Your task to perform on an android device: Add "corsair k70" to the cart on amazon, then select checkout. Image 0: 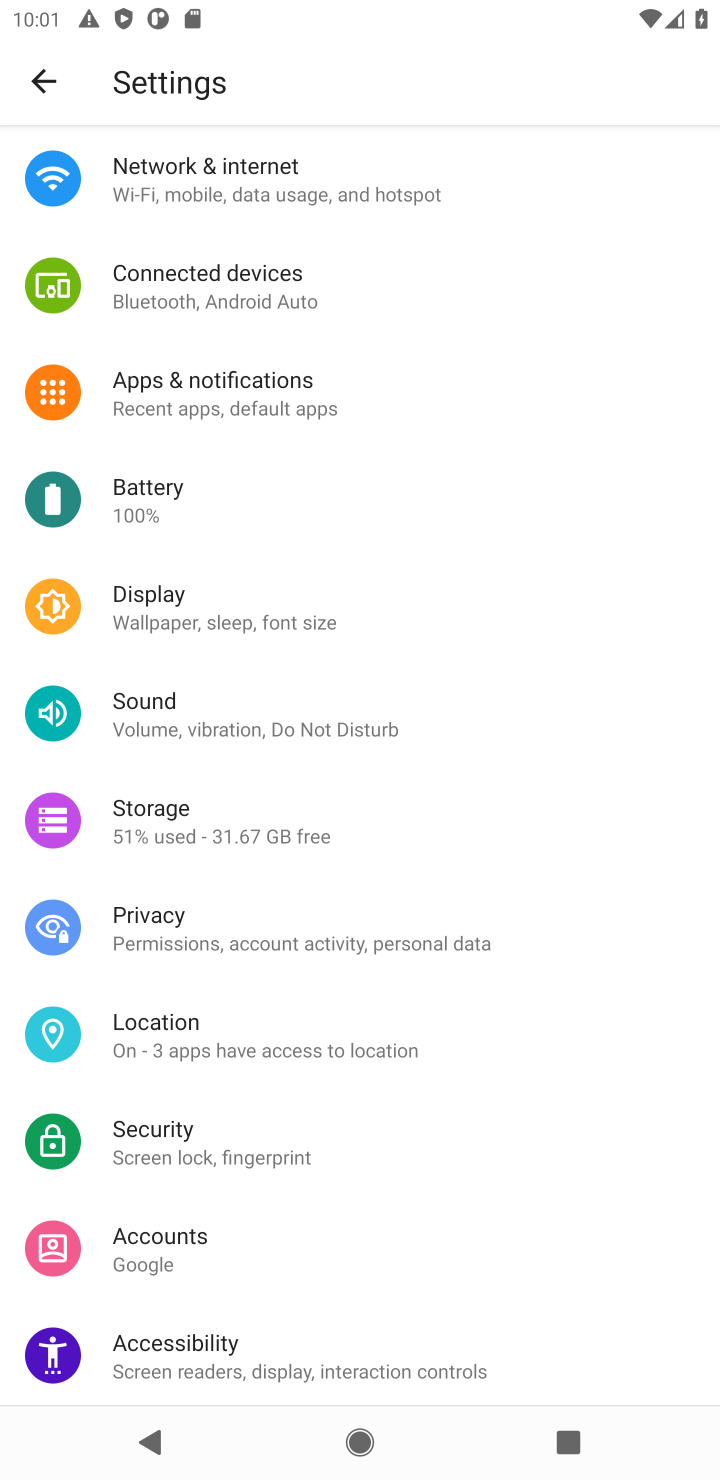
Step 0: press home button
Your task to perform on an android device: Add "corsair k70" to the cart on amazon, then select checkout. Image 1: 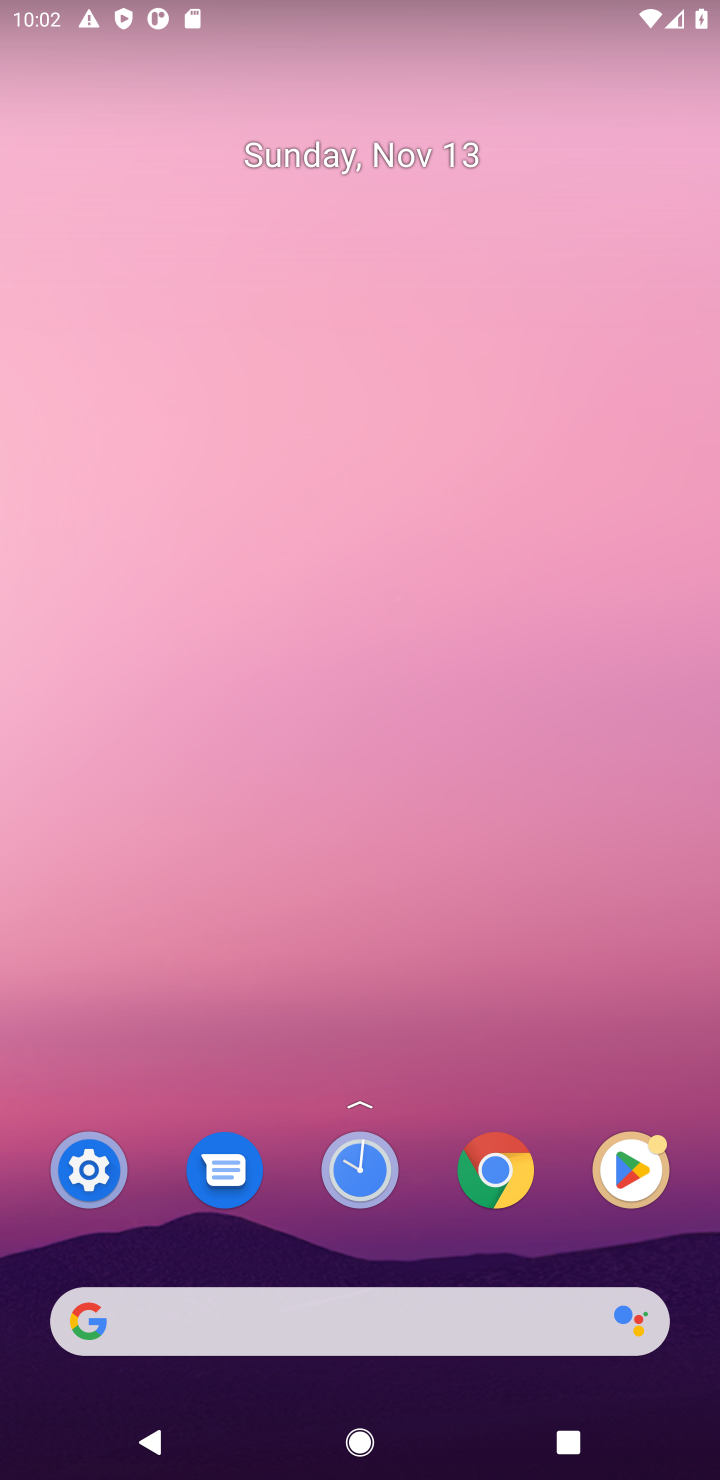
Step 1: click (279, 1351)
Your task to perform on an android device: Add "corsair k70" to the cart on amazon, then select checkout. Image 2: 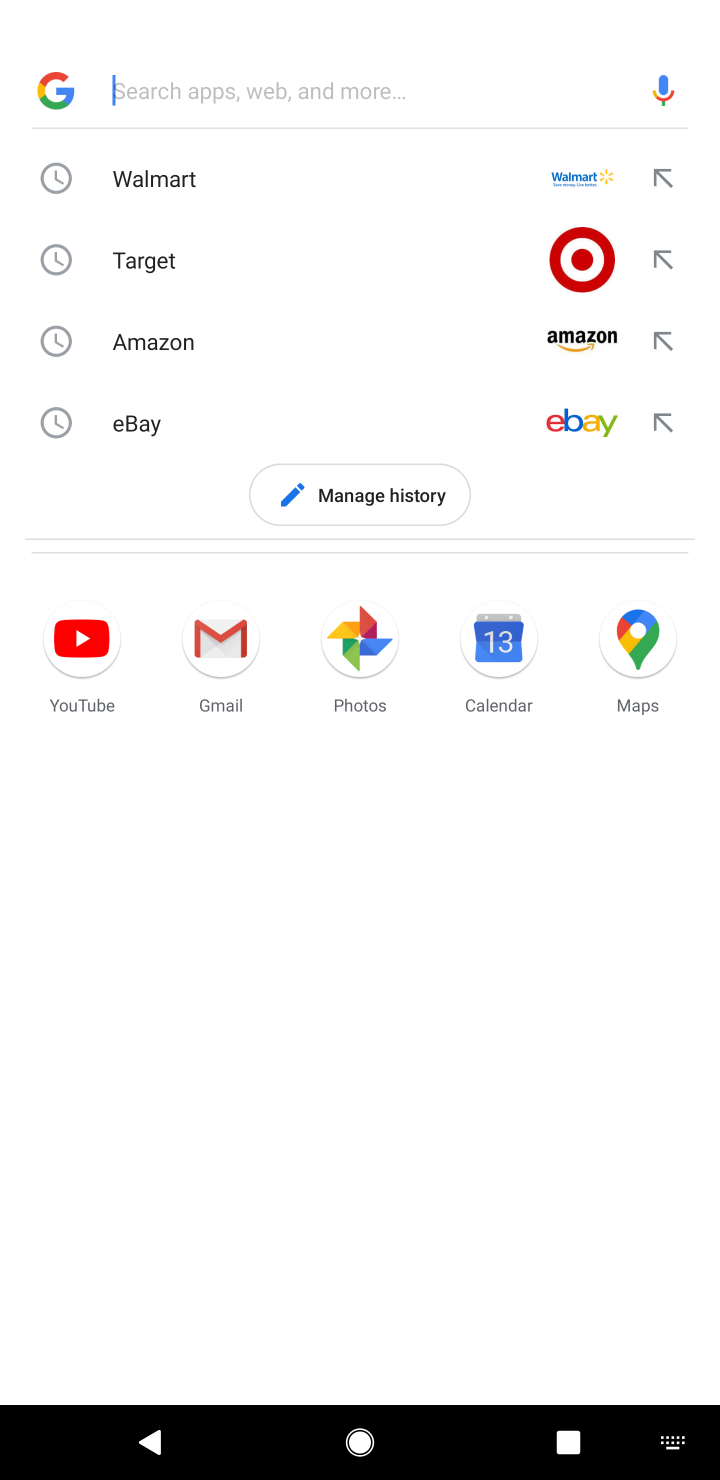
Step 2: type "amazon.com"
Your task to perform on an android device: Add "corsair k70" to the cart on amazon, then select checkout. Image 3: 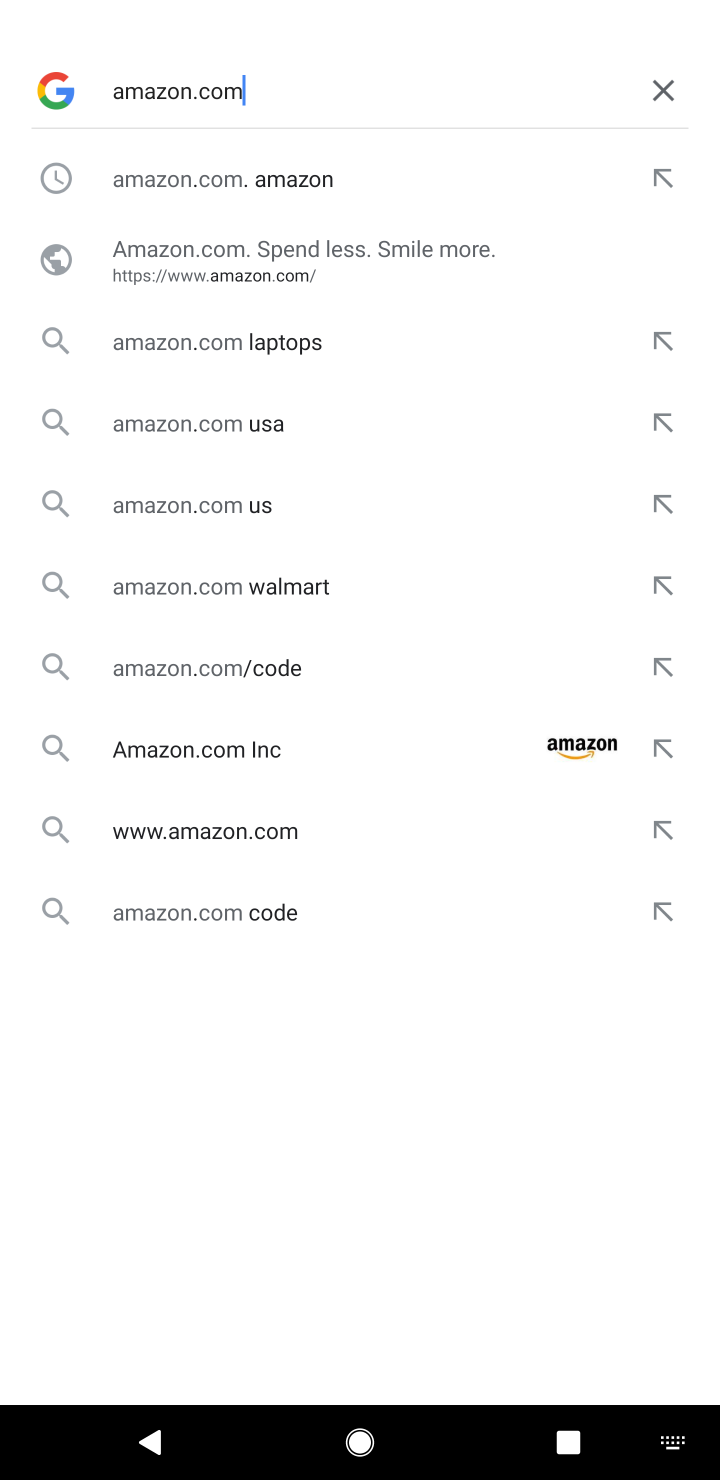
Step 3: click (252, 737)
Your task to perform on an android device: Add "corsair k70" to the cart on amazon, then select checkout. Image 4: 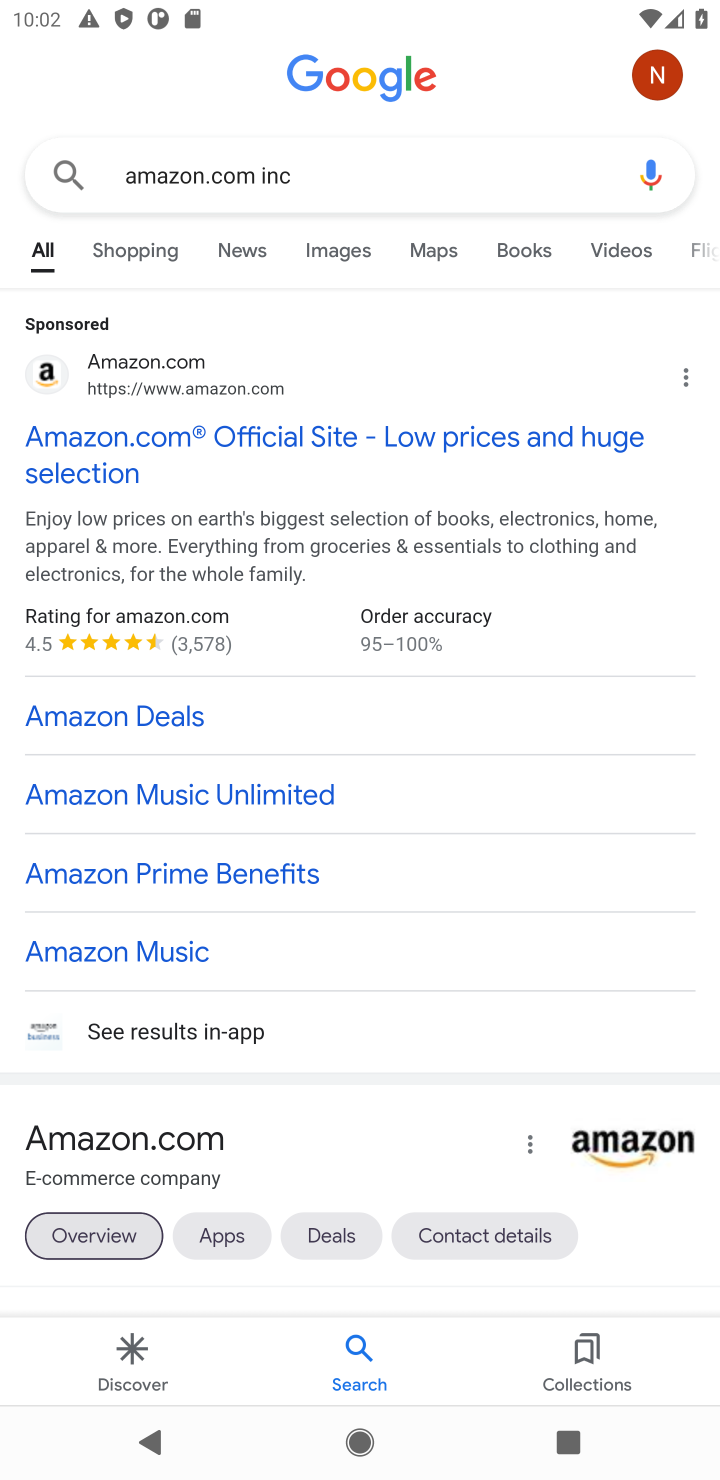
Step 4: click (104, 481)
Your task to perform on an android device: Add "corsair k70" to the cart on amazon, then select checkout. Image 5: 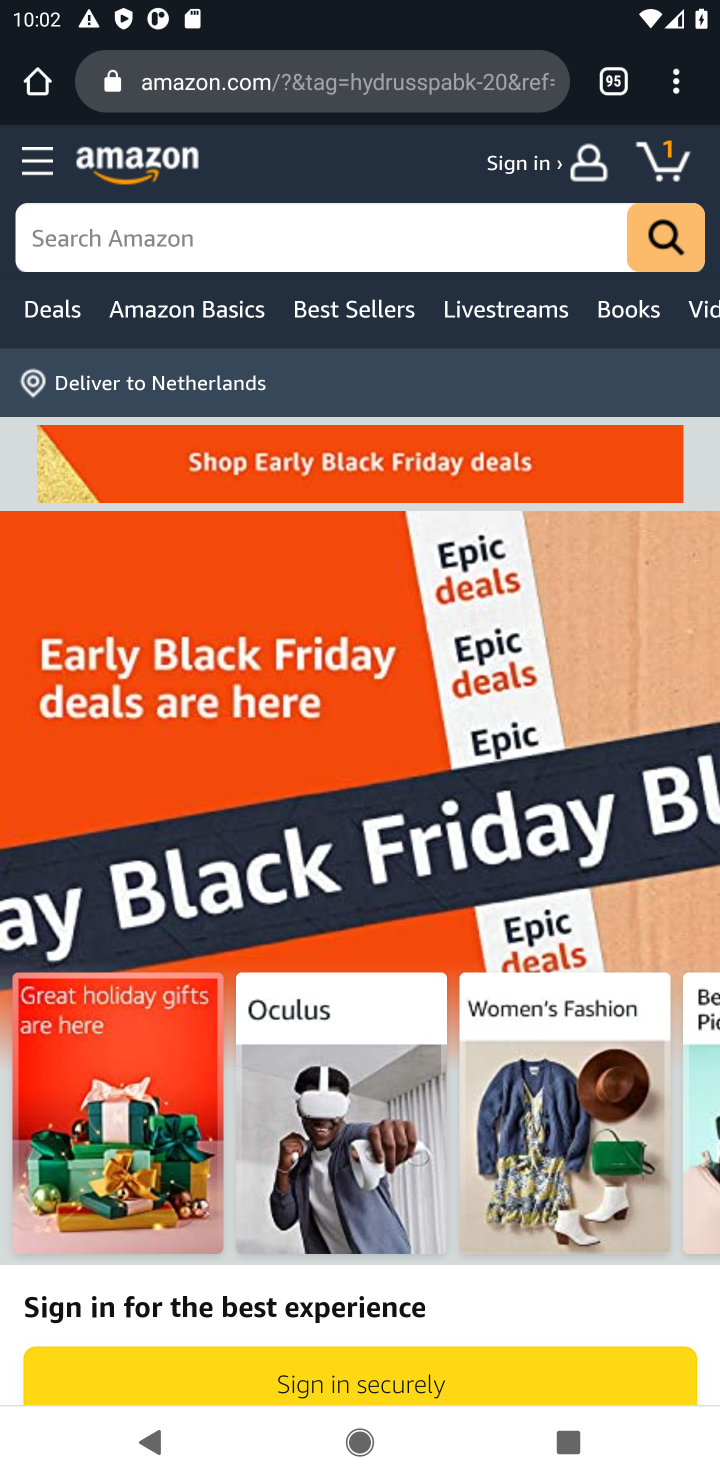
Step 5: click (305, 254)
Your task to perform on an android device: Add "corsair k70" to the cart on amazon, then select checkout. Image 6: 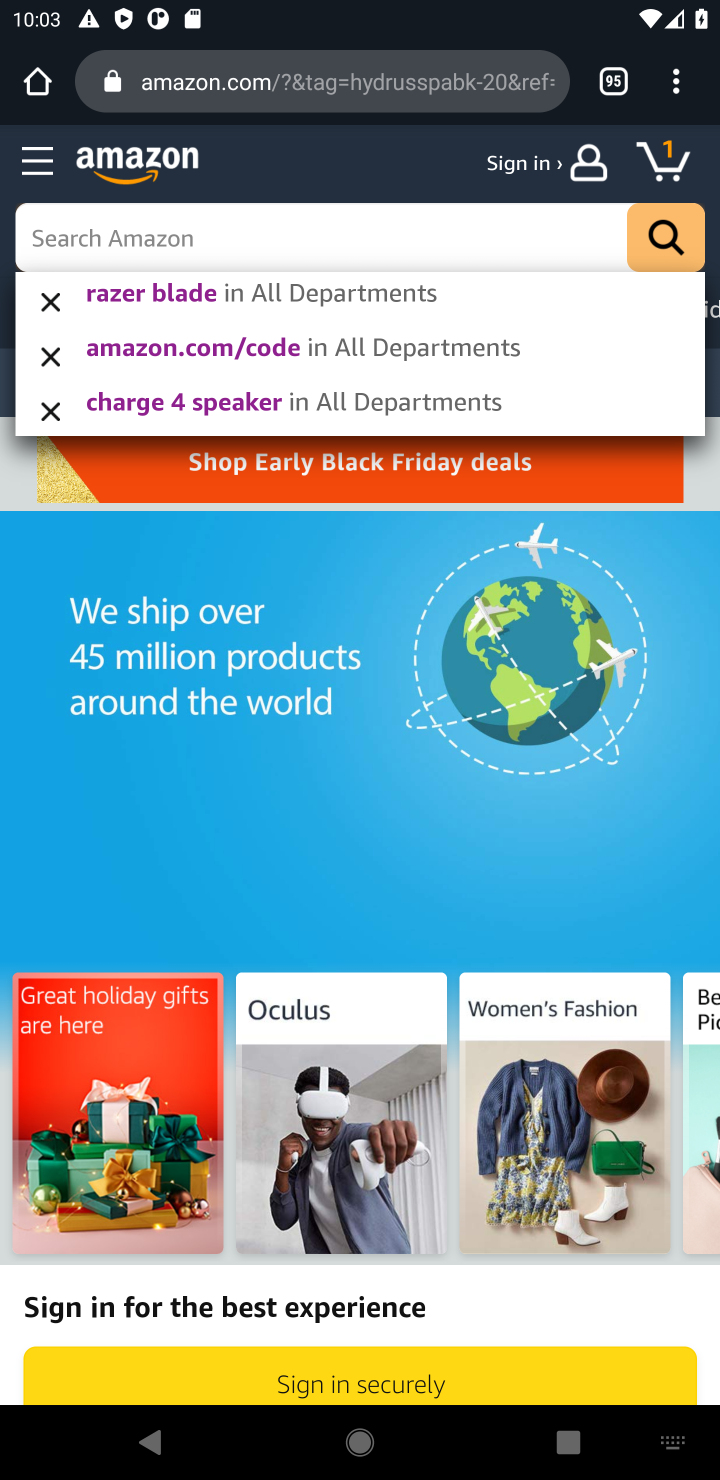
Step 6: type "corsair.com"
Your task to perform on an android device: Add "corsair k70" to the cart on amazon, then select checkout. Image 7: 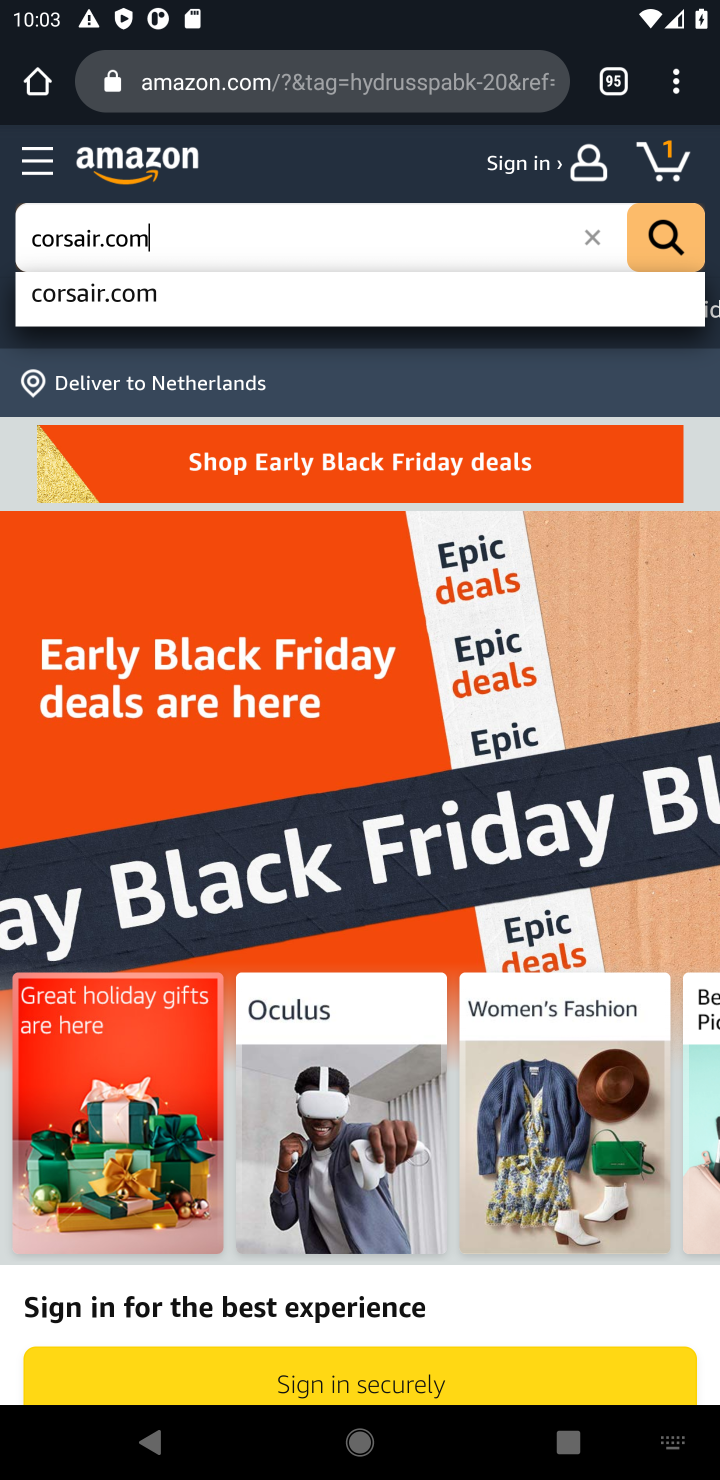
Step 7: click (668, 243)
Your task to perform on an android device: Add "corsair k70" to the cart on amazon, then select checkout. Image 8: 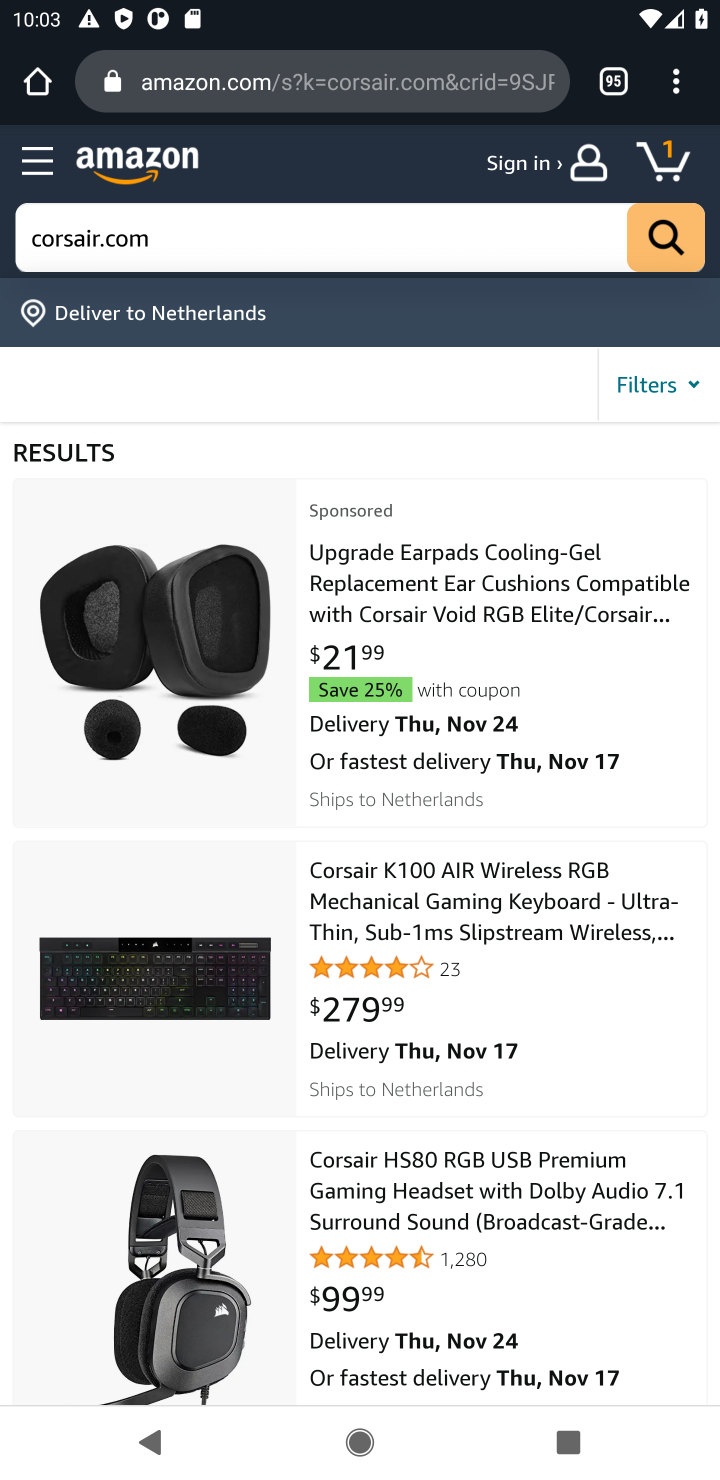
Step 8: click (406, 527)
Your task to perform on an android device: Add "corsair k70" to the cart on amazon, then select checkout. Image 9: 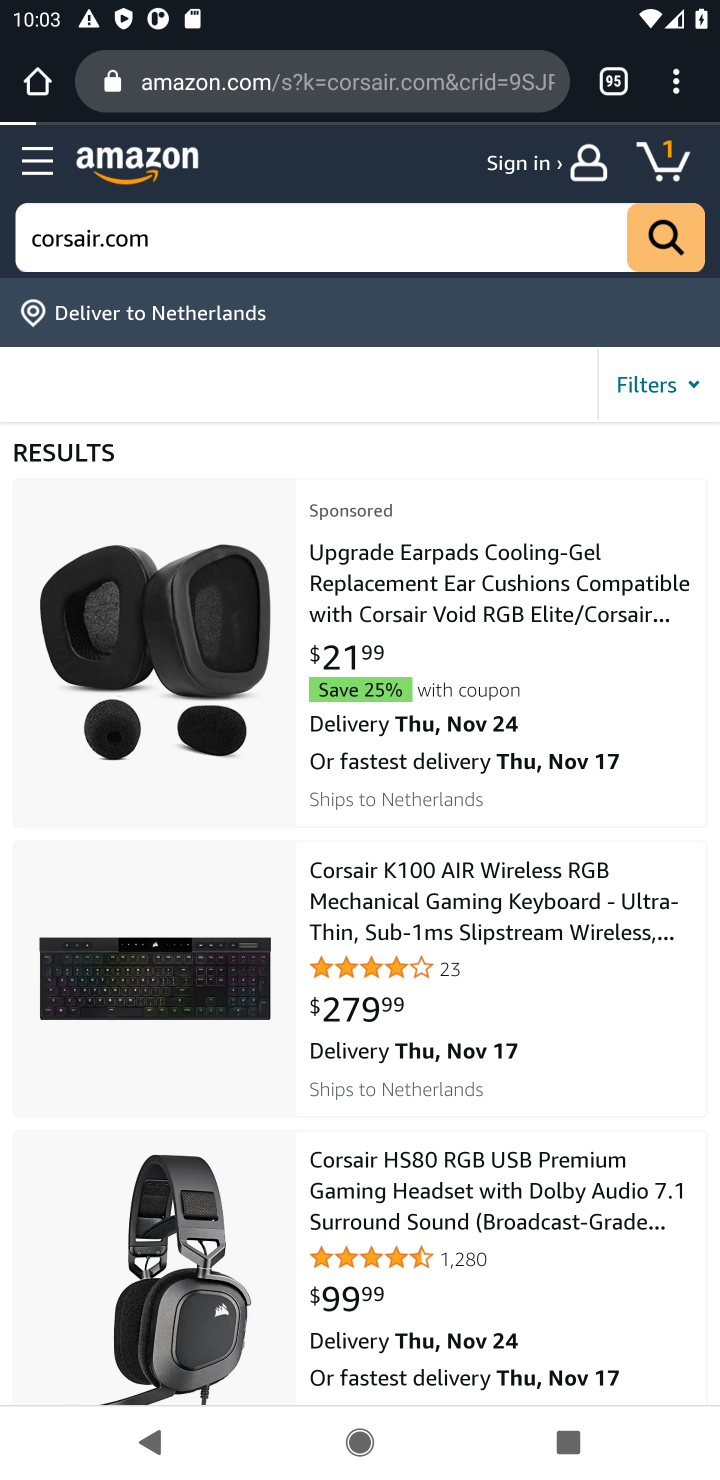
Step 9: task complete